Your task to perform on an android device: add a contact in the contacts app Image 0: 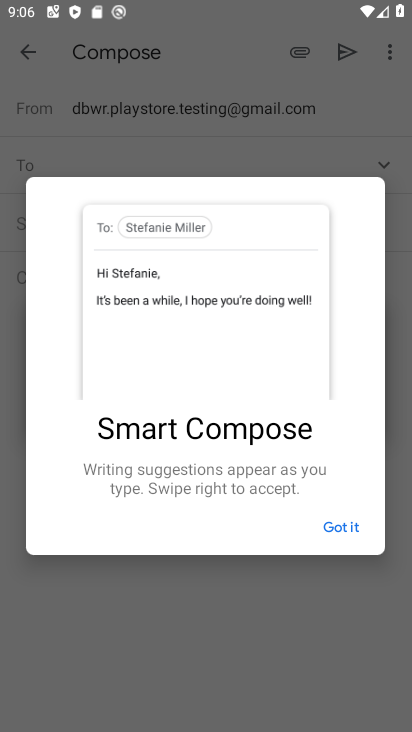
Step 0: press home button
Your task to perform on an android device: add a contact in the contacts app Image 1: 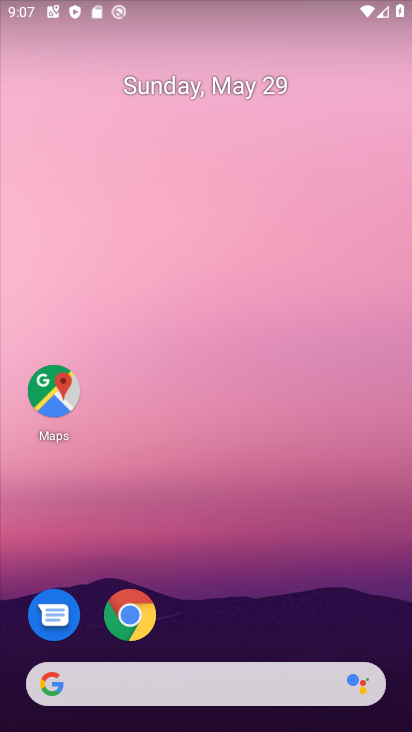
Step 1: drag from (223, 596) to (274, 40)
Your task to perform on an android device: add a contact in the contacts app Image 2: 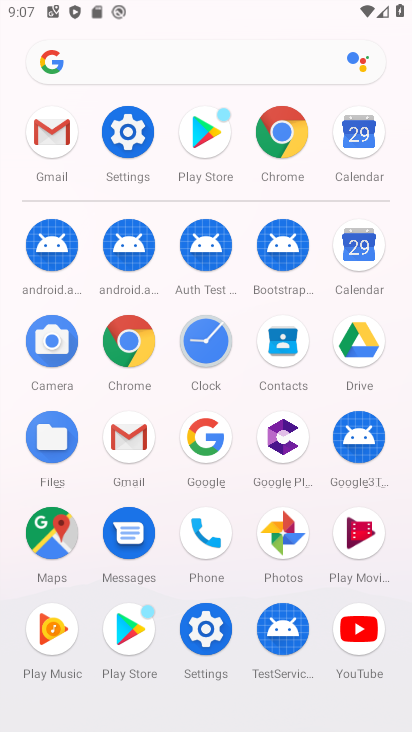
Step 2: click (287, 336)
Your task to perform on an android device: add a contact in the contacts app Image 3: 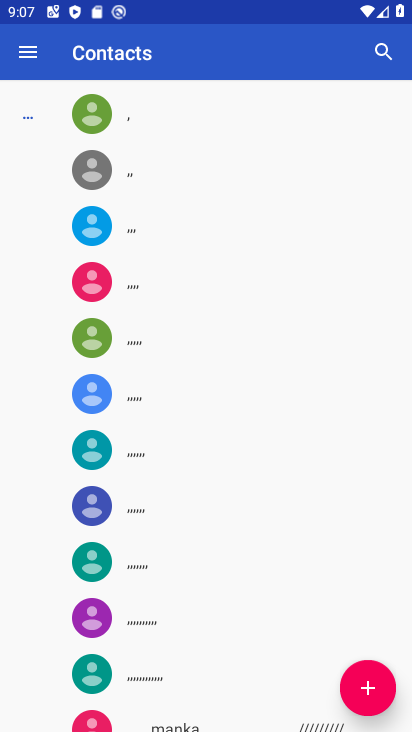
Step 3: click (370, 687)
Your task to perform on an android device: add a contact in the contacts app Image 4: 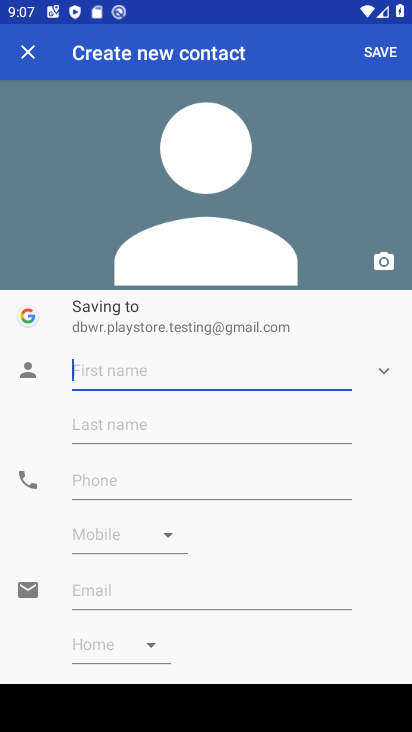
Step 4: type "awdszxfrtcvghy"
Your task to perform on an android device: add a contact in the contacts app Image 5: 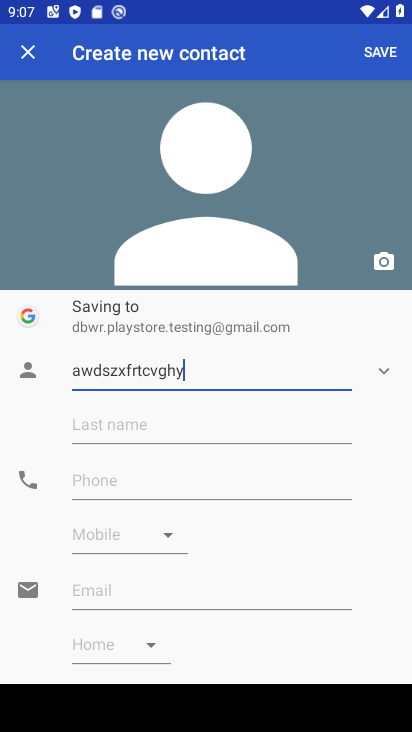
Step 5: click (105, 481)
Your task to perform on an android device: add a contact in the contacts app Image 6: 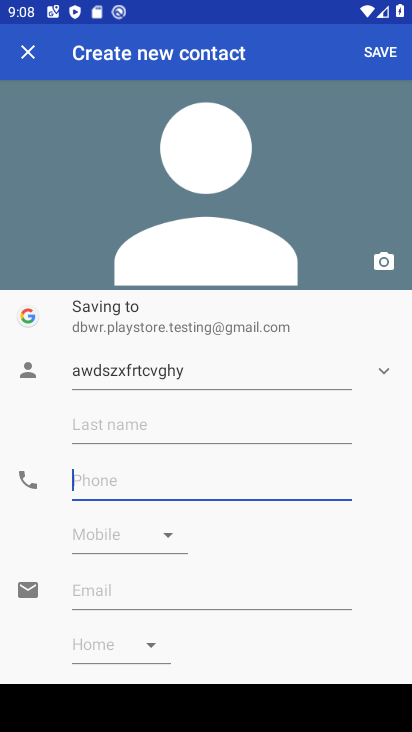
Step 6: type "98707654321"
Your task to perform on an android device: add a contact in the contacts app Image 7: 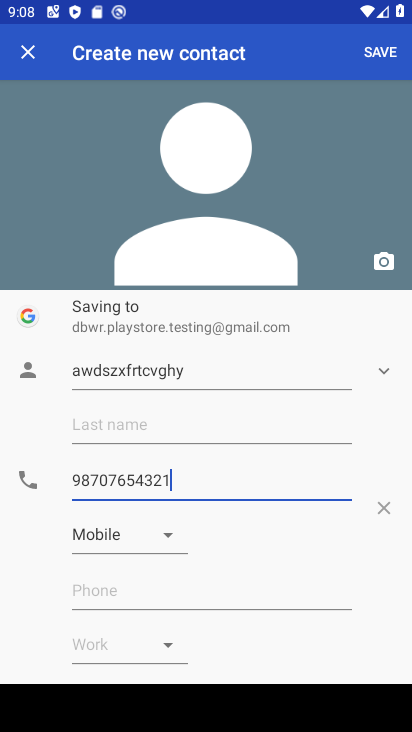
Step 7: click (369, 45)
Your task to perform on an android device: add a contact in the contacts app Image 8: 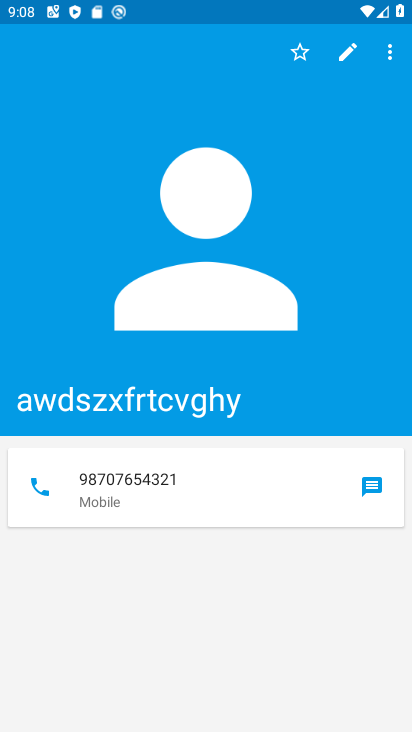
Step 8: task complete